Your task to perform on an android device: Open notification settings Image 0: 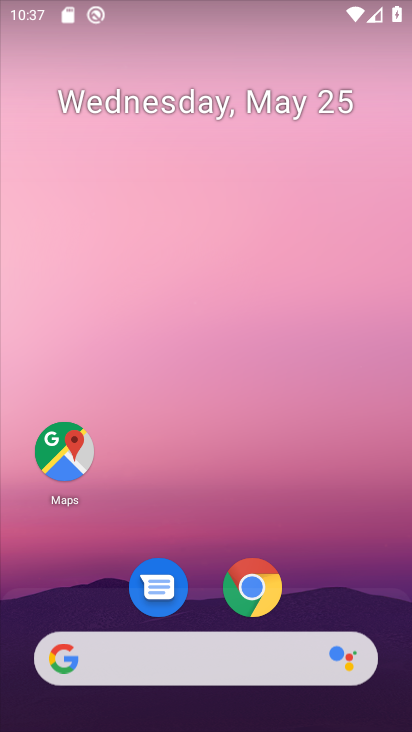
Step 0: drag from (351, 566) to (204, 14)
Your task to perform on an android device: Open notification settings Image 1: 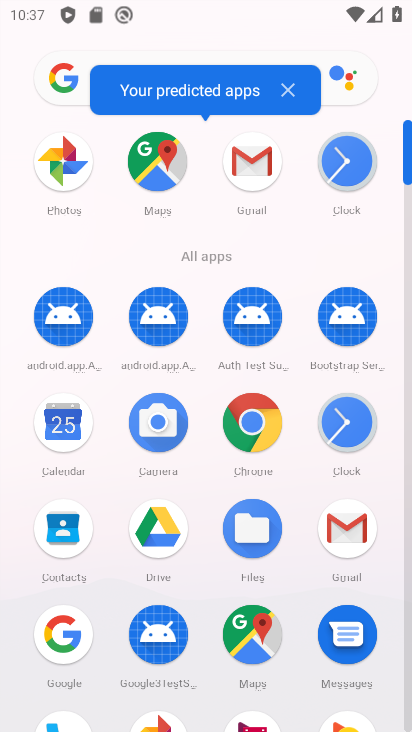
Step 1: drag from (5, 576) to (3, 299)
Your task to perform on an android device: Open notification settings Image 2: 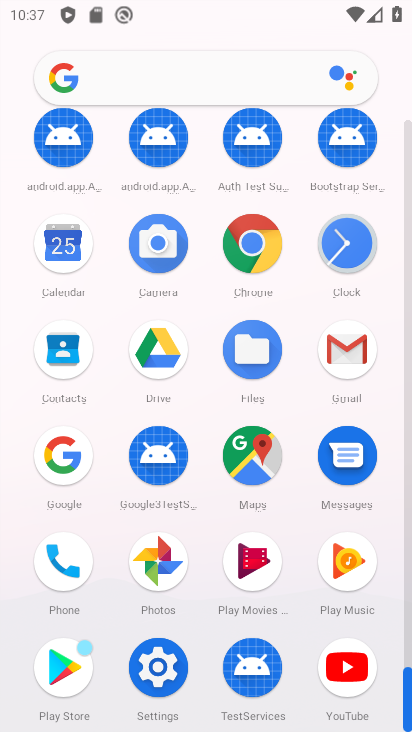
Step 2: click (158, 666)
Your task to perform on an android device: Open notification settings Image 3: 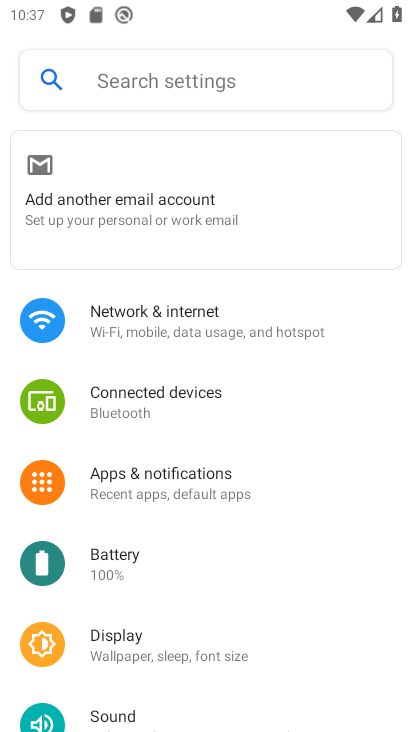
Step 3: click (171, 479)
Your task to perform on an android device: Open notification settings Image 4: 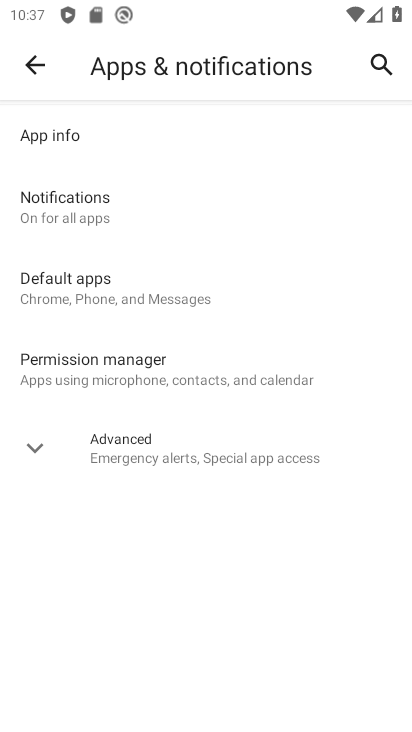
Step 4: click (38, 450)
Your task to perform on an android device: Open notification settings Image 5: 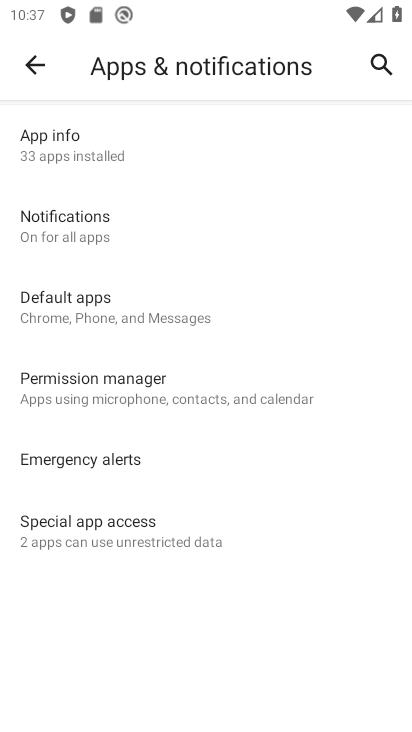
Step 5: task complete